Your task to perform on an android device: Go to internet settings Image 0: 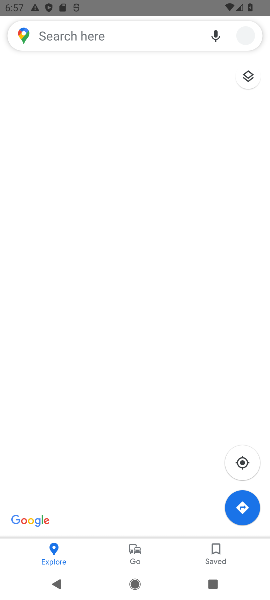
Step 0: press home button
Your task to perform on an android device: Go to internet settings Image 1: 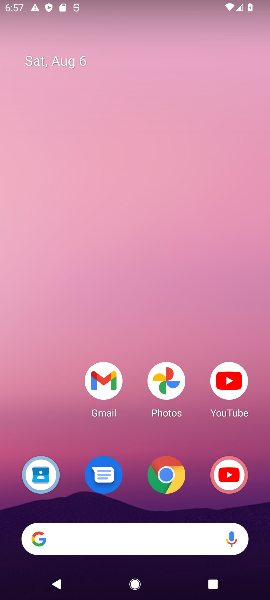
Step 1: drag from (133, 422) to (167, 163)
Your task to perform on an android device: Go to internet settings Image 2: 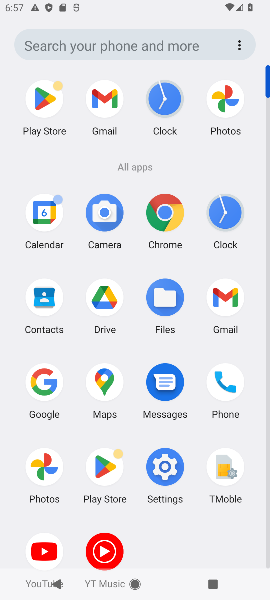
Step 2: click (168, 456)
Your task to perform on an android device: Go to internet settings Image 3: 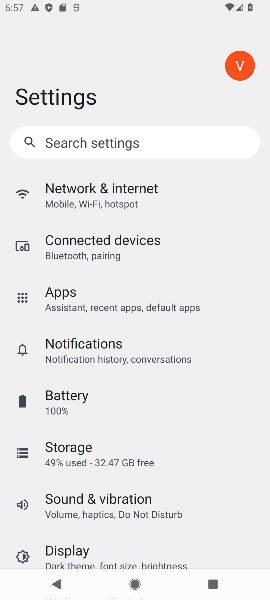
Step 3: click (106, 210)
Your task to perform on an android device: Go to internet settings Image 4: 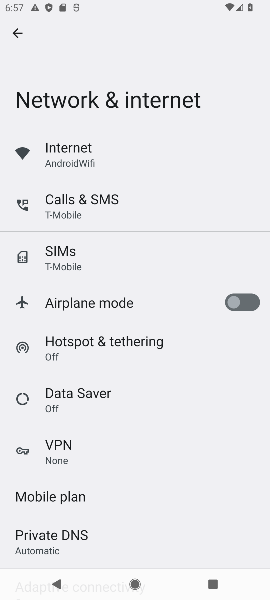
Step 4: click (93, 153)
Your task to perform on an android device: Go to internet settings Image 5: 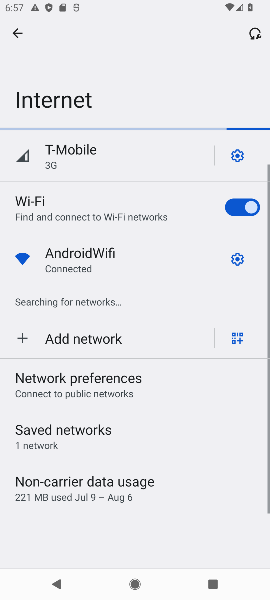
Step 5: task complete